Your task to perform on an android device: empty trash in google photos Image 0: 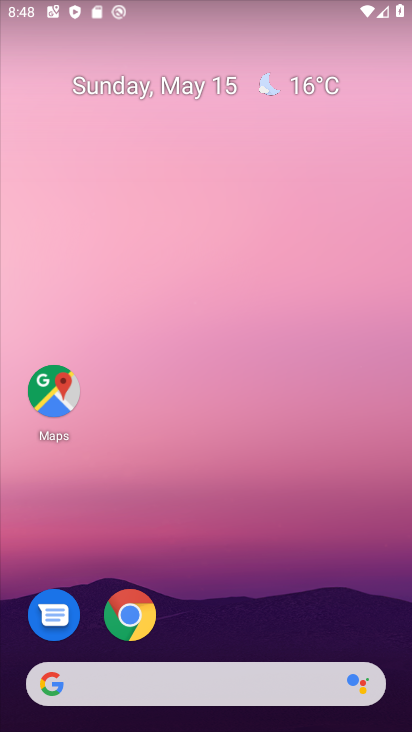
Step 0: drag from (247, 626) to (258, 107)
Your task to perform on an android device: empty trash in google photos Image 1: 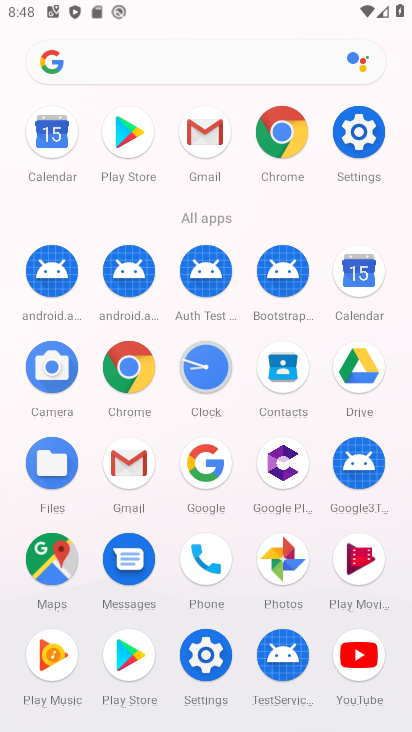
Step 1: click (285, 544)
Your task to perform on an android device: empty trash in google photos Image 2: 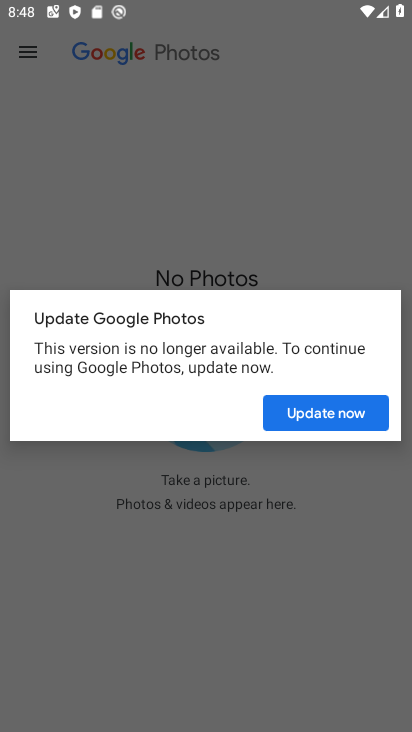
Step 2: click (272, 412)
Your task to perform on an android device: empty trash in google photos Image 3: 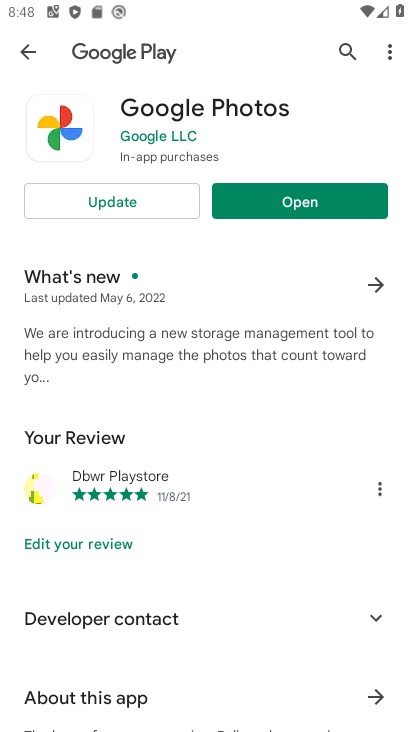
Step 3: click (272, 208)
Your task to perform on an android device: empty trash in google photos Image 4: 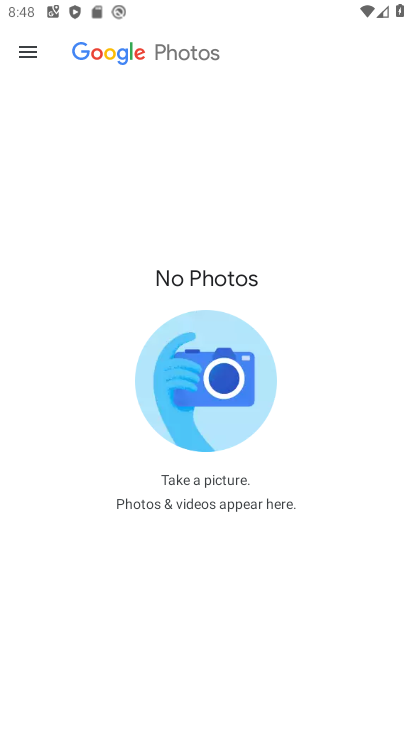
Step 4: click (31, 48)
Your task to perform on an android device: empty trash in google photos Image 5: 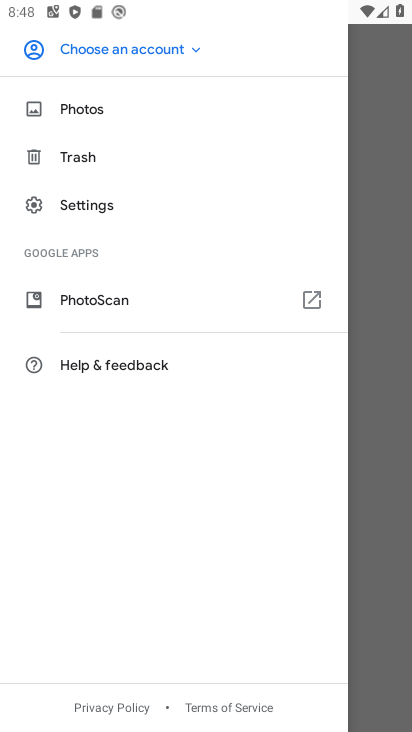
Step 5: click (94, 159)
Your task to perform on an android device: empty trash in google photos Image 6: 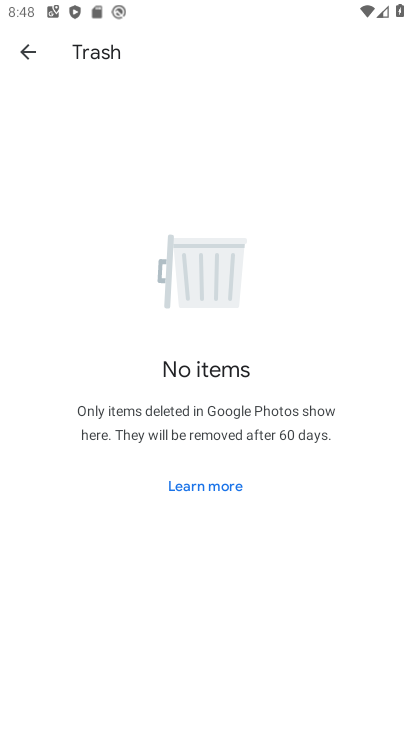
Step 6: task complete